Your task to perform on an android device: Search for sushi restaurants on Maps Image 0: 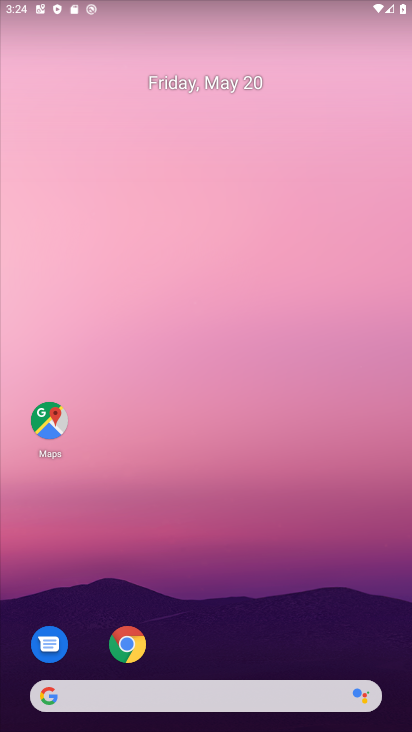
Step 0: click (52, 424)
Your task to perform on an android device: Search for sushi restaurants on Maps Image 1: 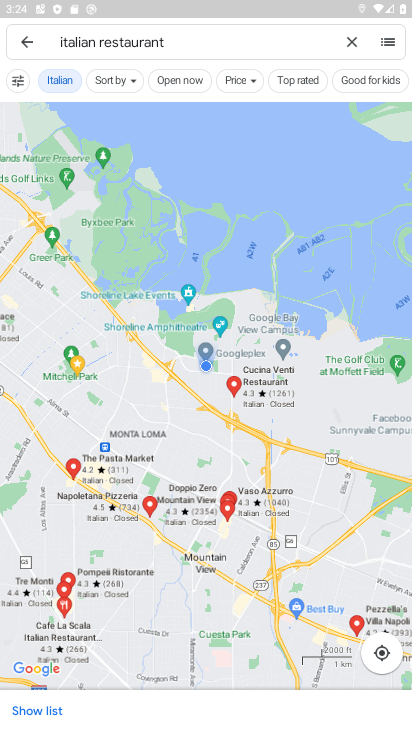
Step 1: click (188, 48)
Your task to perform on an android device: Search for sushi restaurants on Maps Image 2: 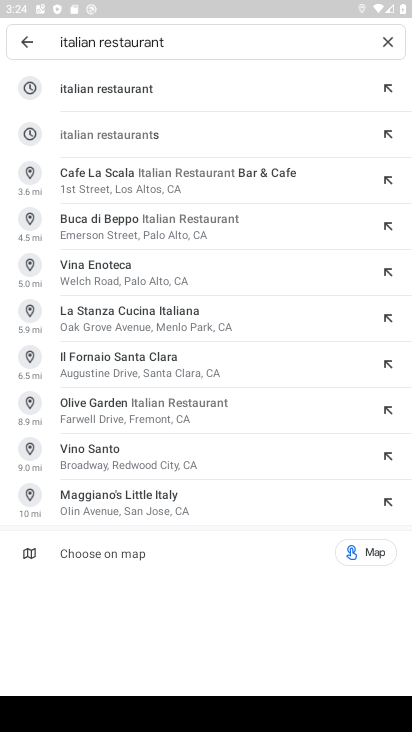
Step 2: click (388, 45)
Your task to perform on an android device: Search for sushi restaurants on Maps Image 3: 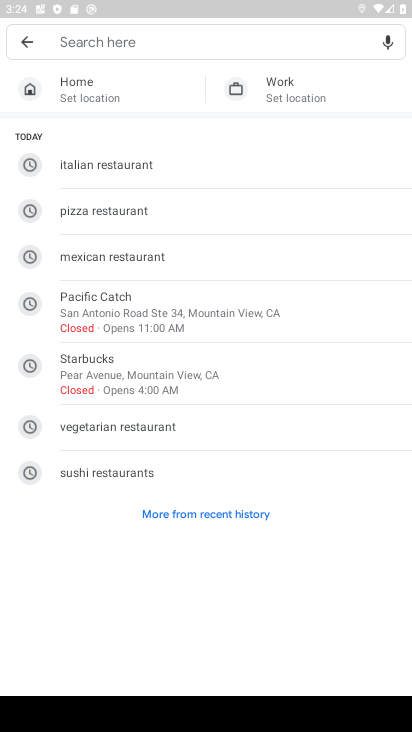
Step 3: click (158, 472)
Your task to perform on an android device: Search for sushi restaurants on Maps Image 4: 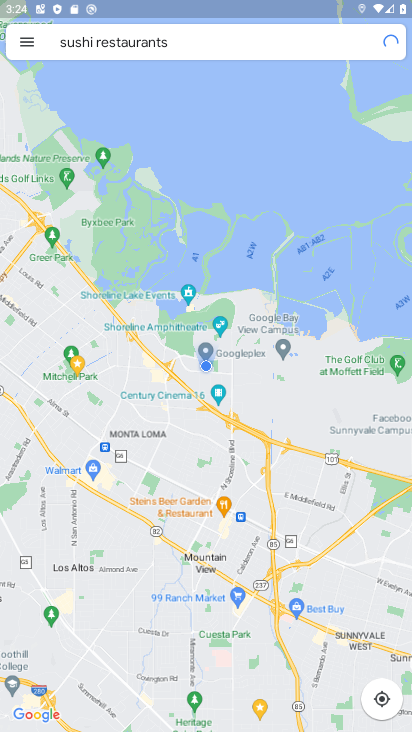
Step 4: task complete